Your task to perform on an android device: Show me the alarms in the clock app Image 0: 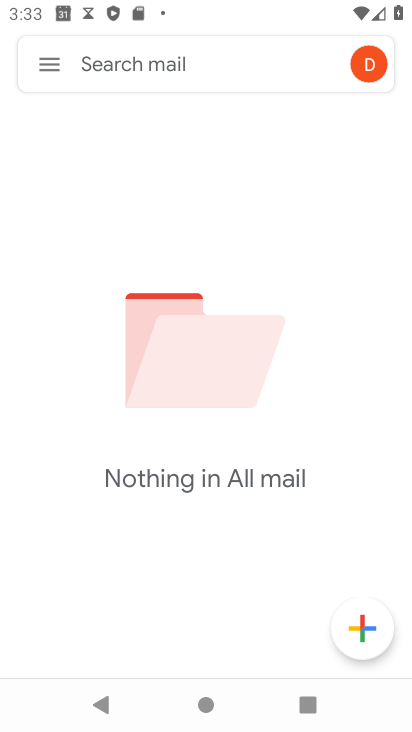
Step 0: press home button
Your task to perform on an android device: Show me the alarms in the clock app Image 1: 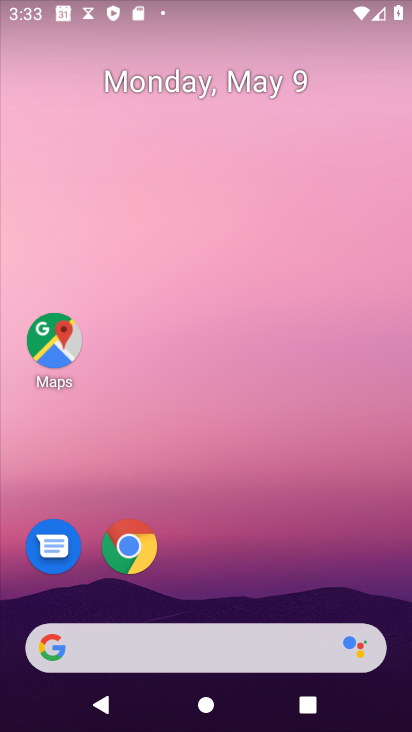
Step 1: drag from (336, 543) to (300, 150)
Your task to perform on an android device: Show me the alarms in the clock app Image 2: 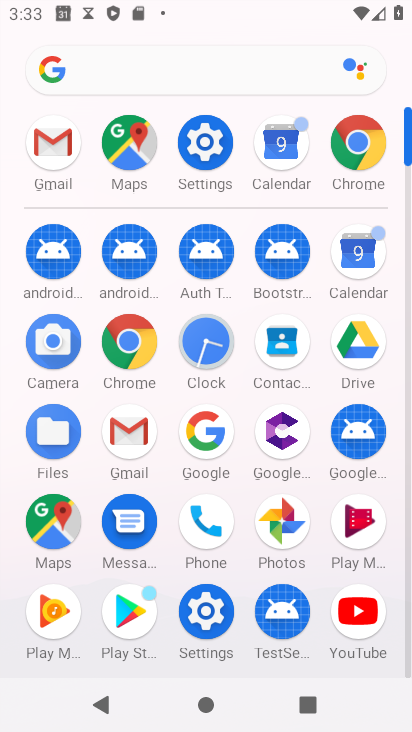
Step 2: click (225, 348)
Your task to perform on an android device: Show me the alarms in the clock app Image 3: 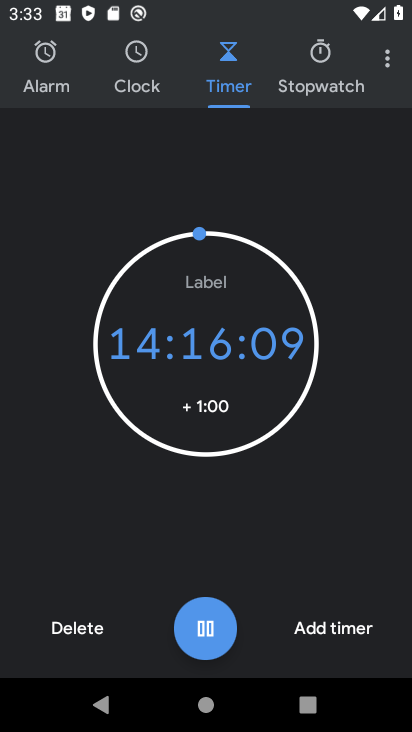
Step 3: click (69, 85)
Your task to perform on an android device: Show me the alarms in the clock app Image 4: 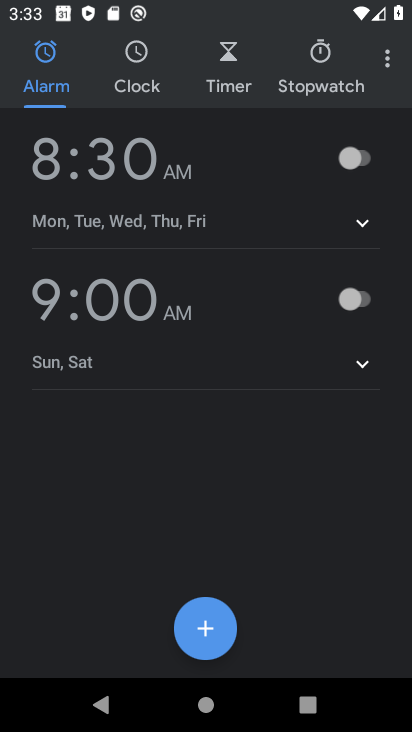
Step 4: click (362, 156)
Your task to perform on an android device: Show me the alarms in the clock app Image 5: 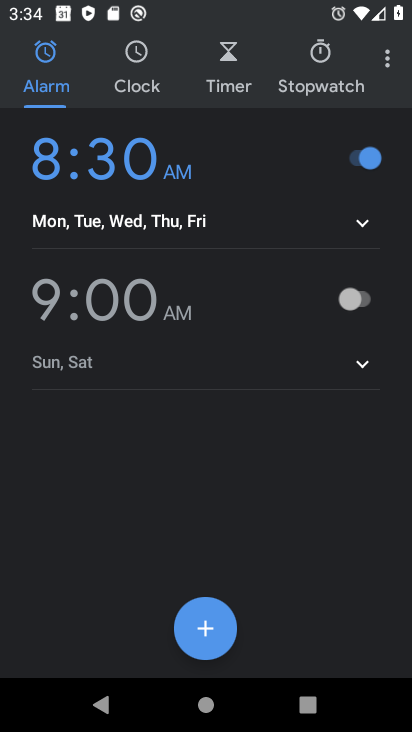
Step 5: task complete